Your task to perform on an android device: snooze an email in the gmail app Image 0: 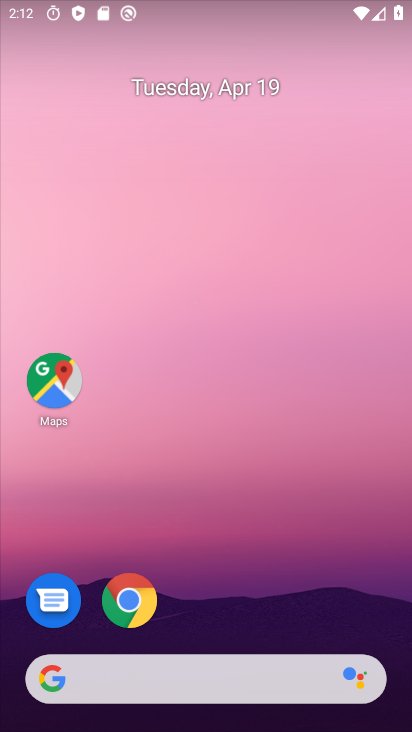
Step 0: drag from (226, 710) to (216, 314)
Your task to perform on an android device: snooze an email in the gmail app Image 1: 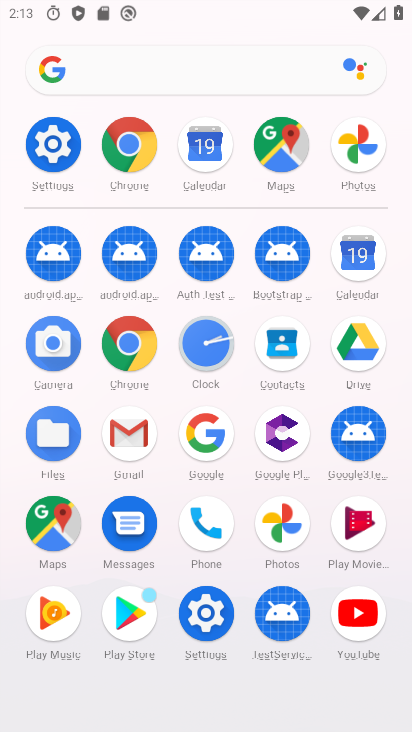
Step 1: click (129, 444)
Your task to perform on an android device: snooze an email in the gmail app Image 2: 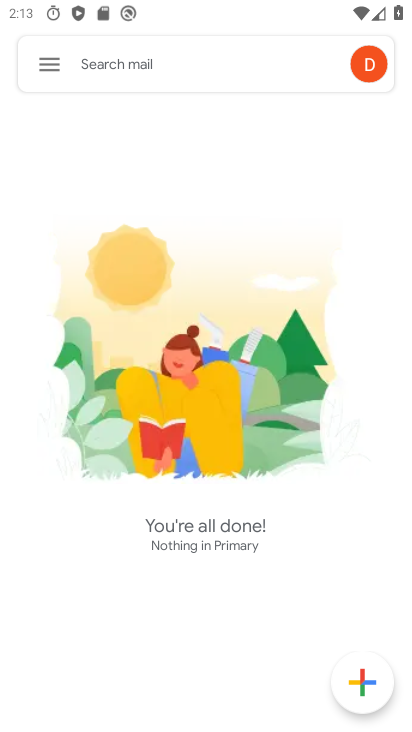
Step 2: click (36, 57)
Your task to perform on an android device: snooze an email in the gmail app Image 3: 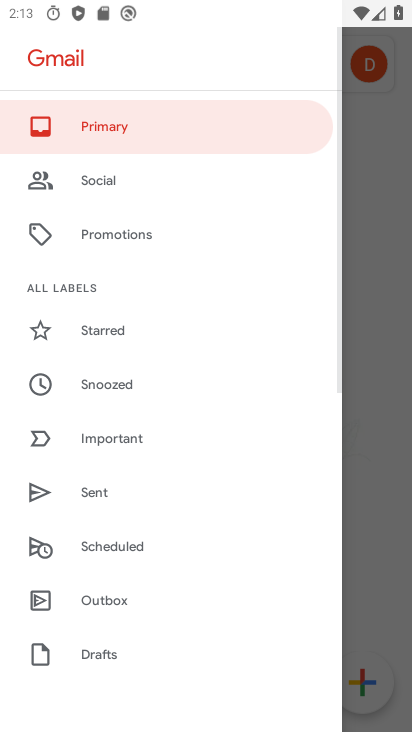
Step 3: click (94, 379)
Your task to perform on an android device: snooze an email in the gmail app Image 4: 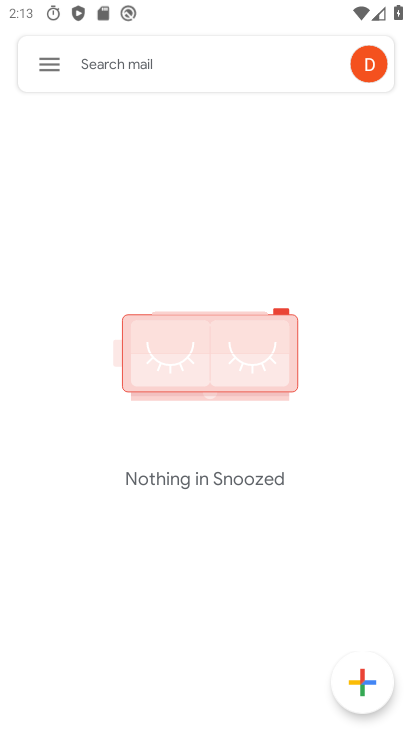
Step 4: task complete